Your task to perform on an android device: see tabs open on other devices in the chrome app Image 0: 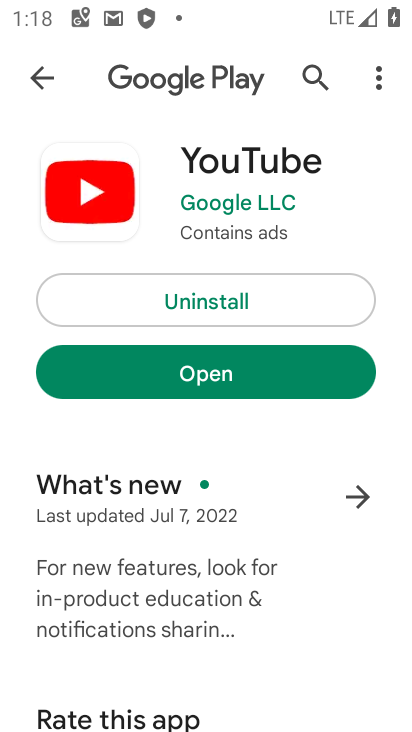
Step 0: press home button
Your task to perform on an android device: see tabs open on other devices in the chrome app Image 1: 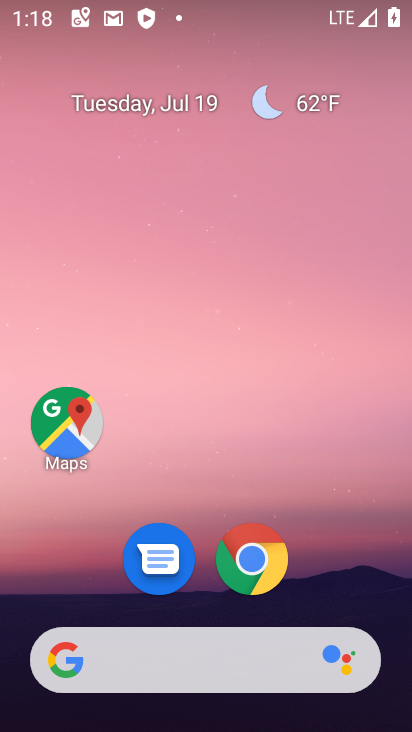
Step 1: drag from (248, 552) to (304, 117)
Your task to perform on an android device: see tabs open on other devices in the chrome app Image 2: 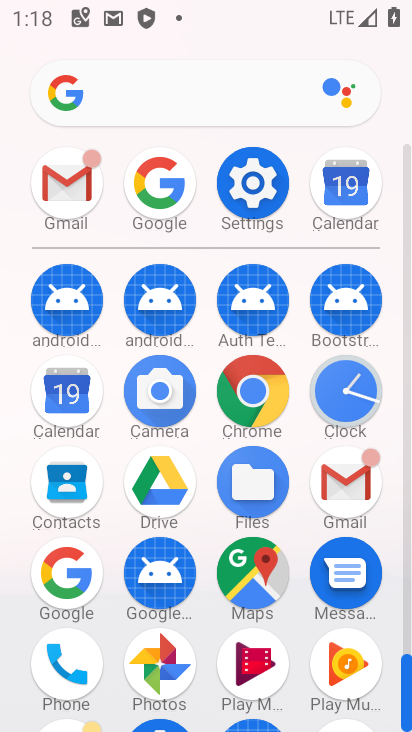
Step 2: click (259, 383)
Your task to perform on an android device: see tabs open on other devices in the chrome app Image 3: 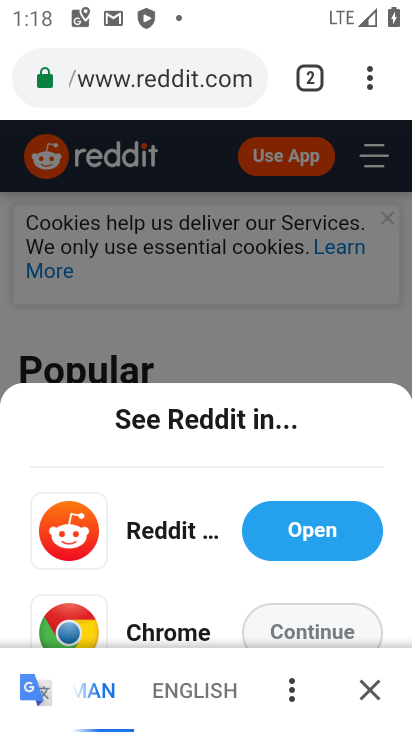
Step 3: task complete